Your task to perform on an android device: open app "Pinterest" Image 0: 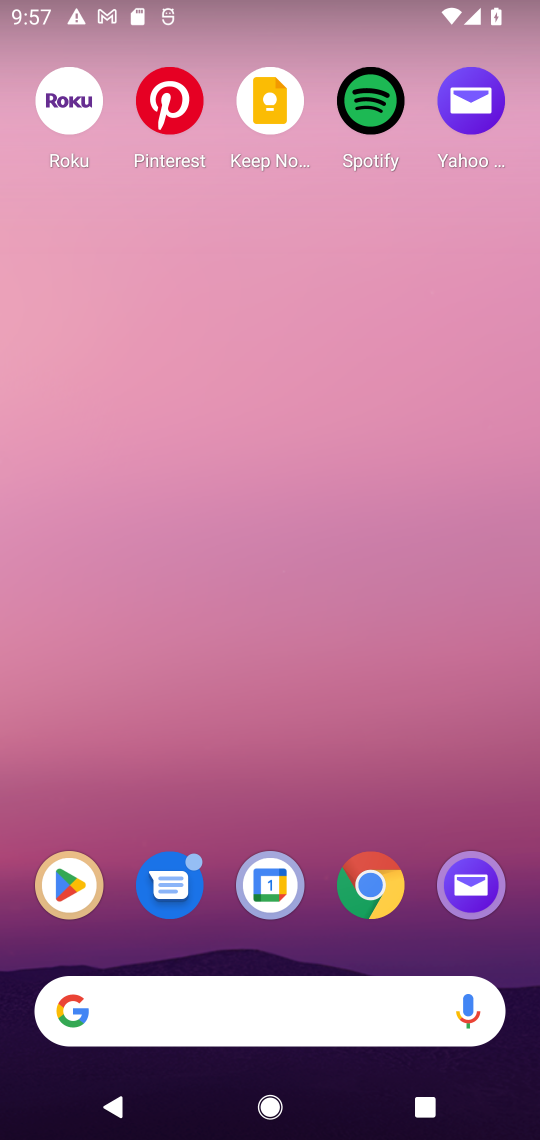
Step 0: drag from (311, 956) to (335, 119)
Your task to perform on an android device: open app "Pinterest" Image 1: 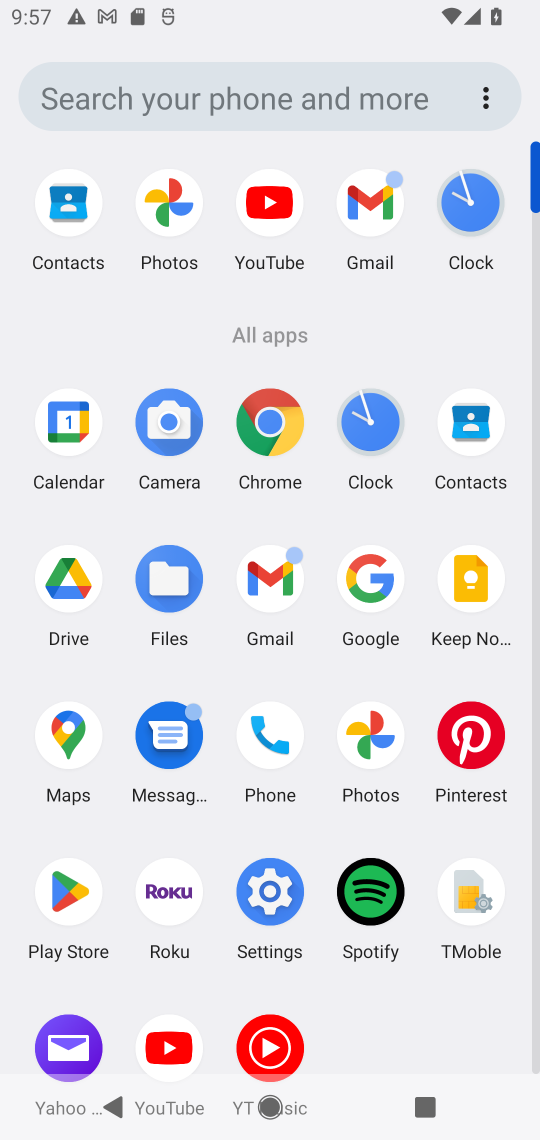
Step 1: click (472, 739)
Your task to perform on an android device: open app "Pinterest" Image 2: 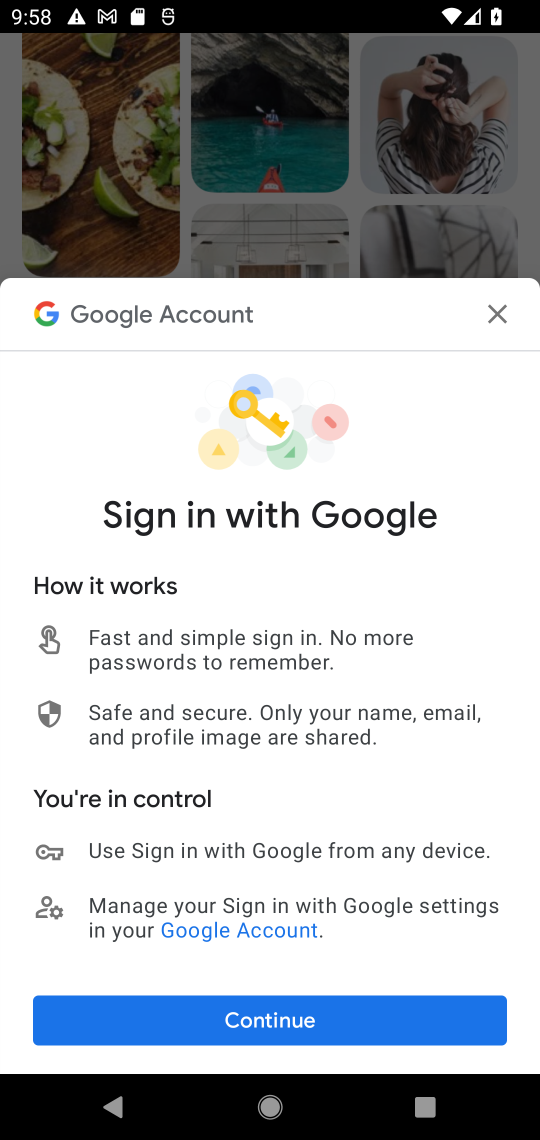
Step 2: click (257, 1019)
Your task to perform on an android device: open app "Pinterest" Image 3: 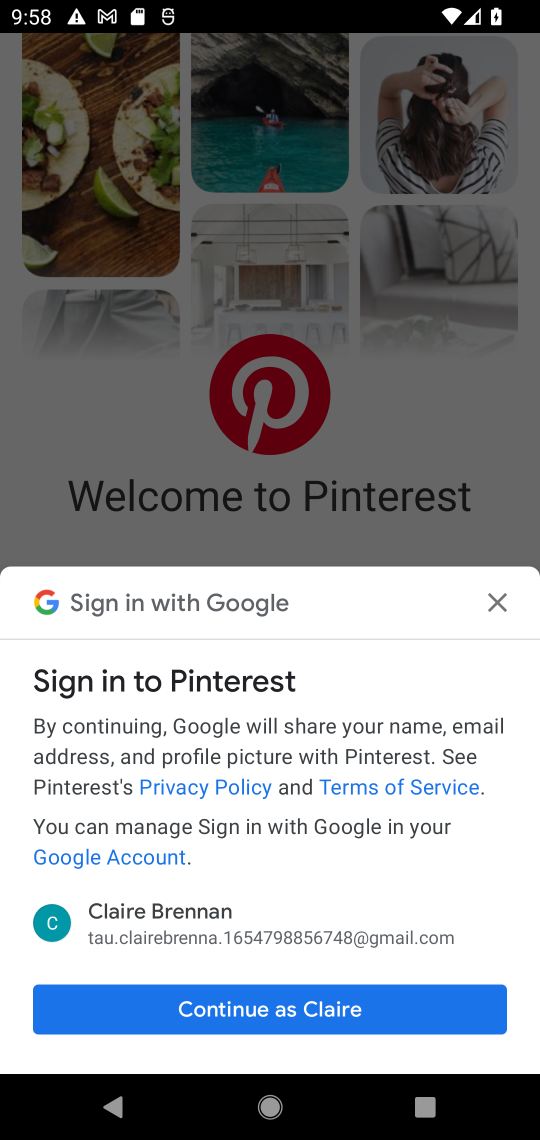
Step 3: task complete